Your task to perform on an android device: Open Maps and search for coffee Image 0: 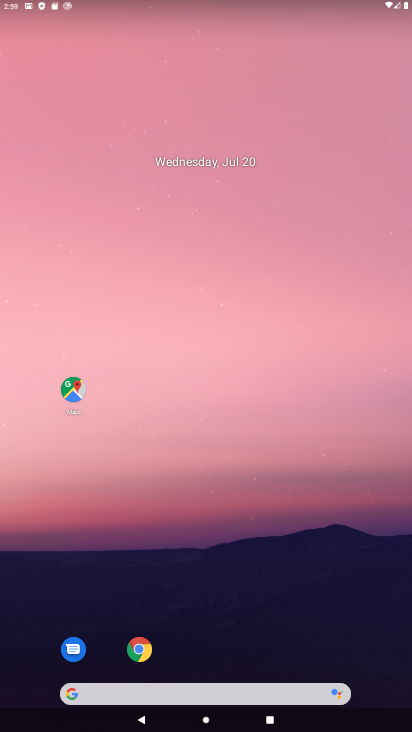
Step 0: click (73, 390)
Your task to perform on an android device: Open Maps and search for coffee Image 1: 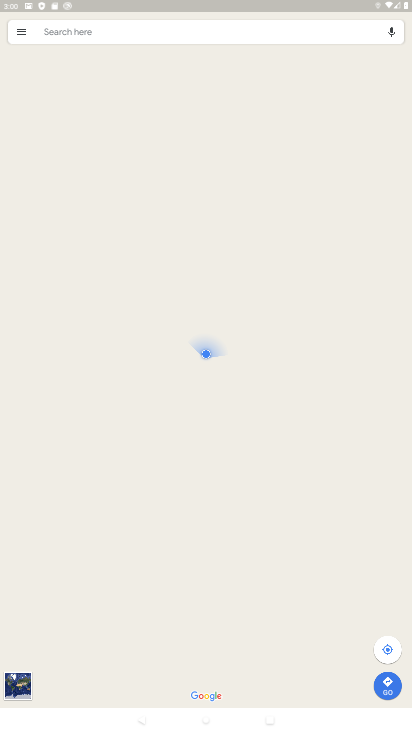
Step 1: click (100, 34)
Your task to perform on an android device: Open Maps and search for coffee Image 2: 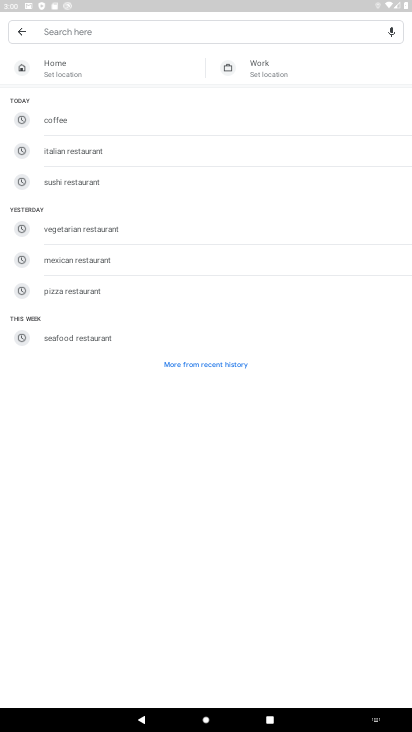
Step 2: type "coffee"
Your task to perform on an android device: Open Maps and search for coffee Image 3: 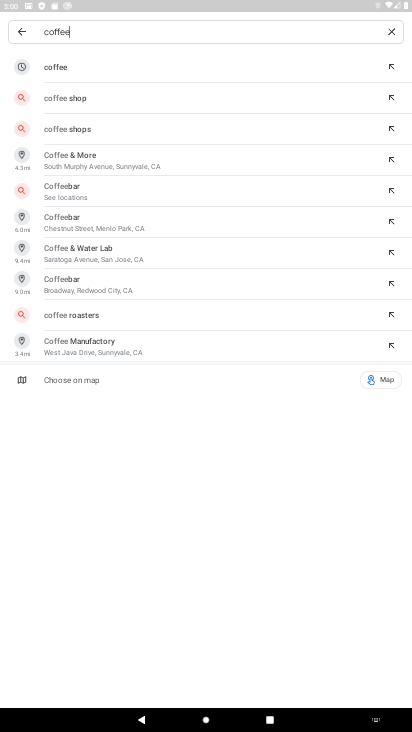
Step 3: click (67, 68)
Your task to perform on an android device: Open Maps and search for coffee Image 4: 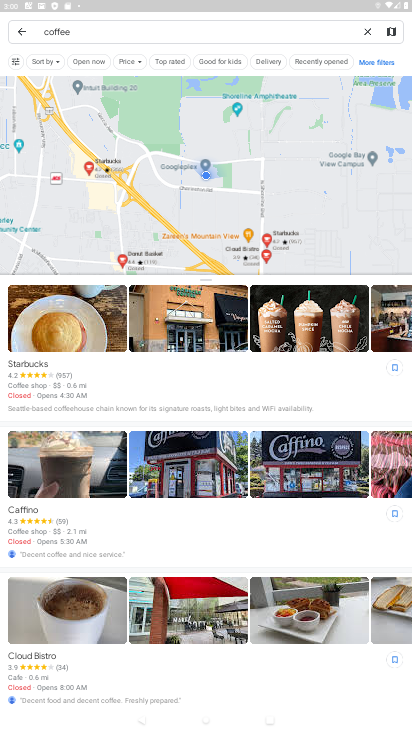
Step 4: task complete